Your task to perform on an android device: Search for sushi restaurants on Maps Image 0: 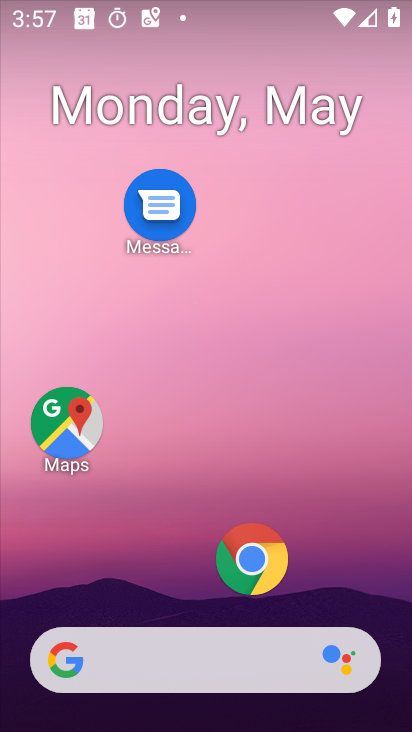
Step 0: click (68, 419)
Your task to perform on an android device: Search for sushi restaurants on Maps Image 1: 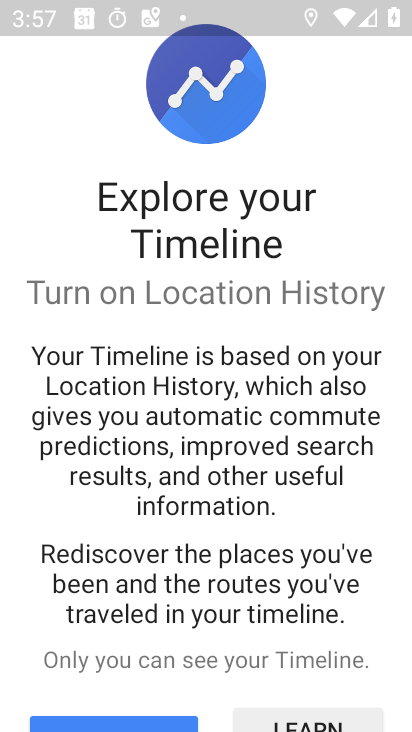
Step 1: drag from (179, 606) to (187, 257)
Your task to perform on an android device: Search for sushi restaurants on Maps Image 2: 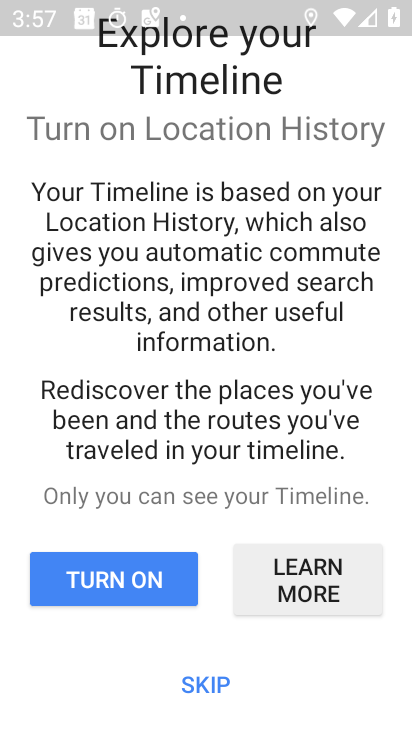
Step 2: click (203, 687)
Your task to perform on an android device: Search for sushi restaurants on Maps Image 3: 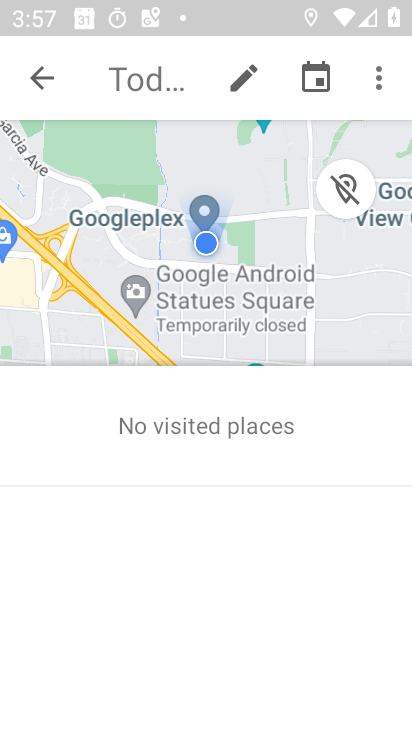
Step 3: click (142, 84)
Your task to perform on an android device: Search for sushi restaurants on Maps Image 4: 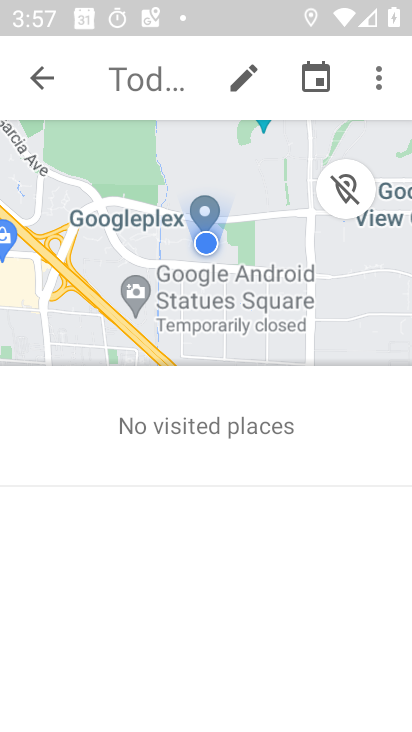
Step 4: click (241, 78)
Your task to perform on an android device: Search for sushi restaurants on Maps Image 5: 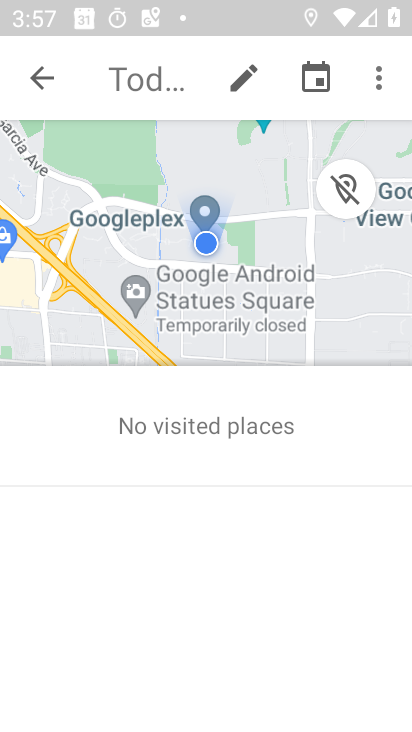
Step 5: click (34, 76)
Your task to perform on an android device: Search for sushi restaurants on Maps Image 6: 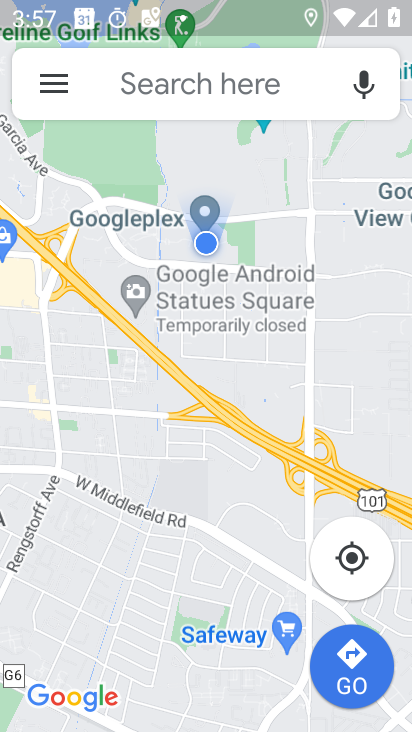
Step 6: click (224, 73)
Your task to perform on an android device: Search for sushi restaurants on Maps Image 7: 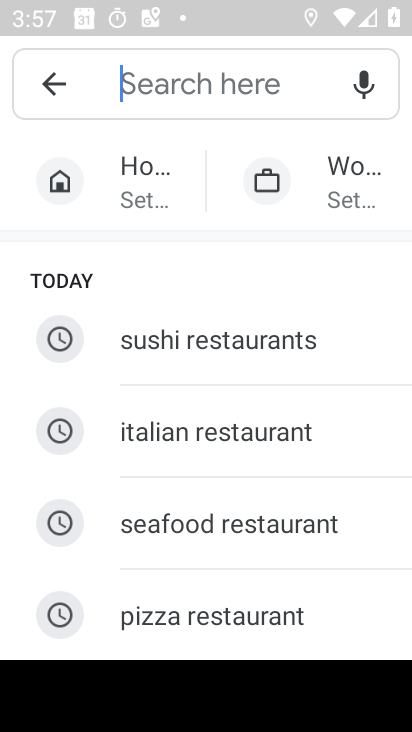
Step 7: type "sushi restaurants "
Your task to perform on an android device: Search for sushi restaurants on Maps Image 8: 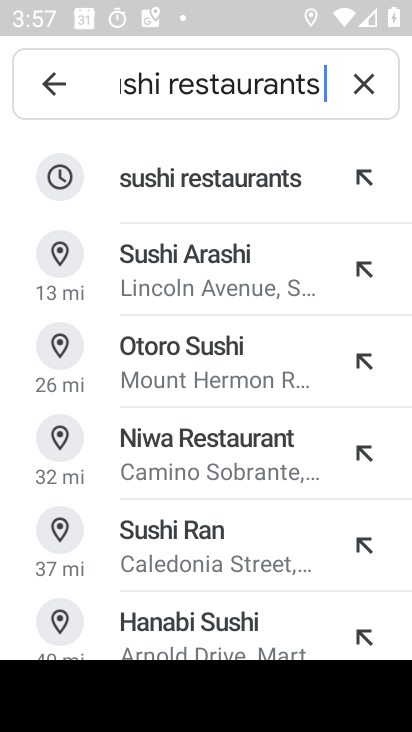
Step 8: click (235, 172)
Your task to perform on an android device: Search for sushi restaurants on Maps Image 9: 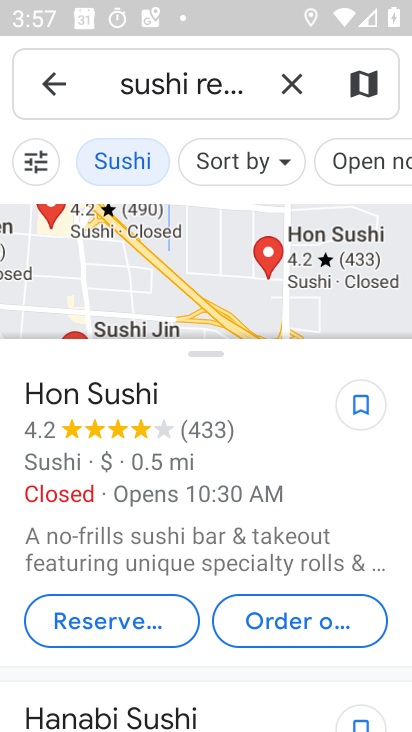
Step 9: task complete